Your task to perform on an android device: Open ESPN.com Image 0: 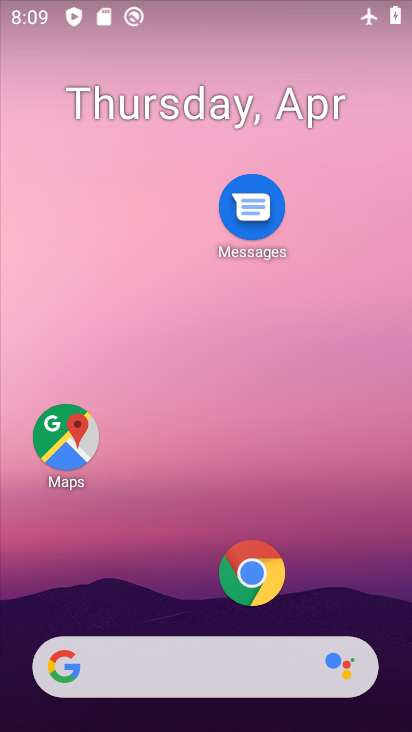
Step 0: click (249, 565)
Your task to perform on an android device: Open ESPN.com Image 1: 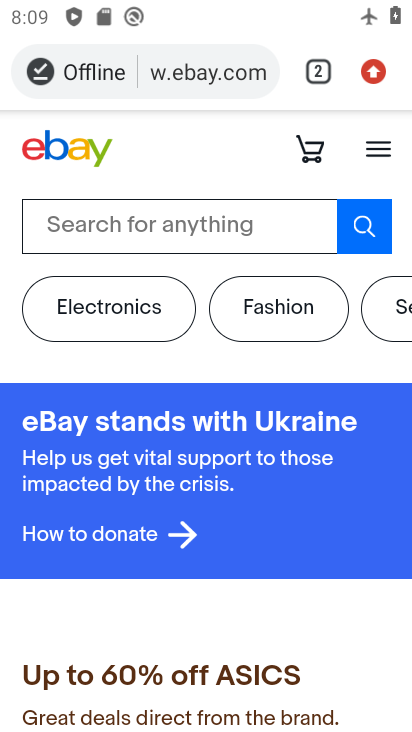
Step 1: click (318, 65)
Your task to perform on an android device: Open ESPN.com Image 2: 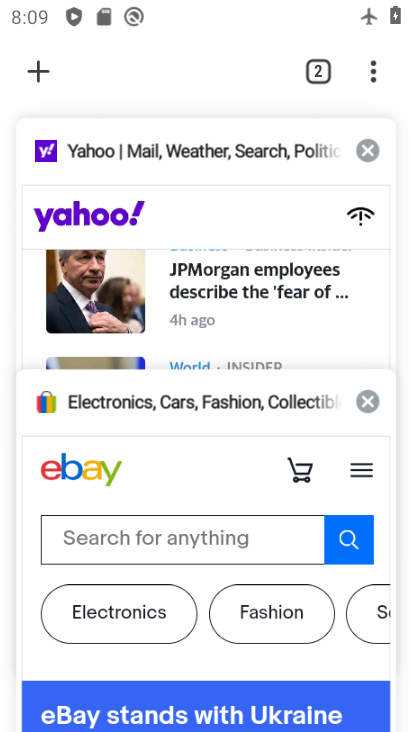
Step 2: click (38, 69)
Your task to perform on an android device: Open ESPN.com Image 3: 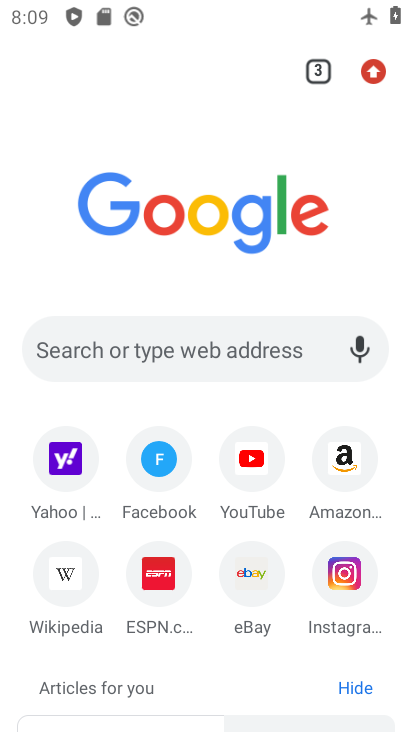
Step 3: click (157, 569)
Your task to perform on an android device: Open ESPN.com Image 4: 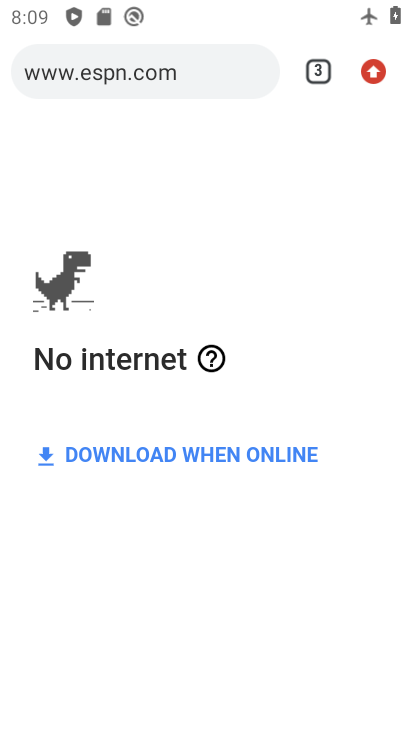
Step 4: task complete